Your task to perform on an android device: Open the stopwatch Image 0: 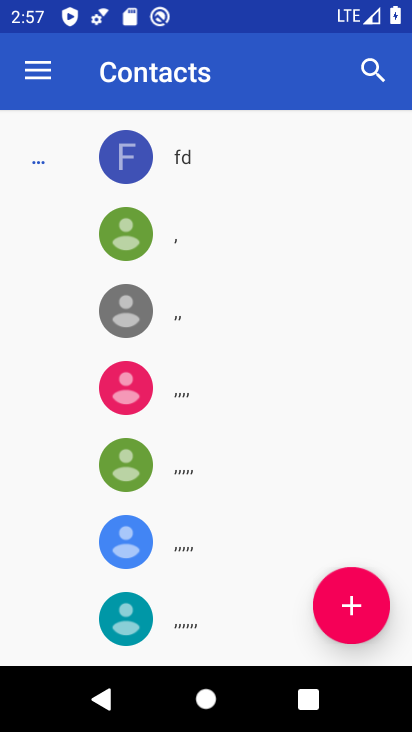
Step 0: press back button
Your task to perform on an android device: Open the stopwatch Image 1: 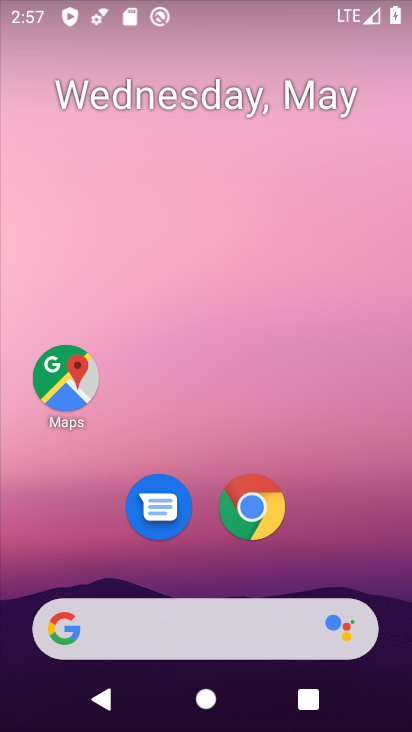
Step 1: drag from (341, 536) to (274, 5)
Your task to perform on an android device: Open the stopwatch Image 2: 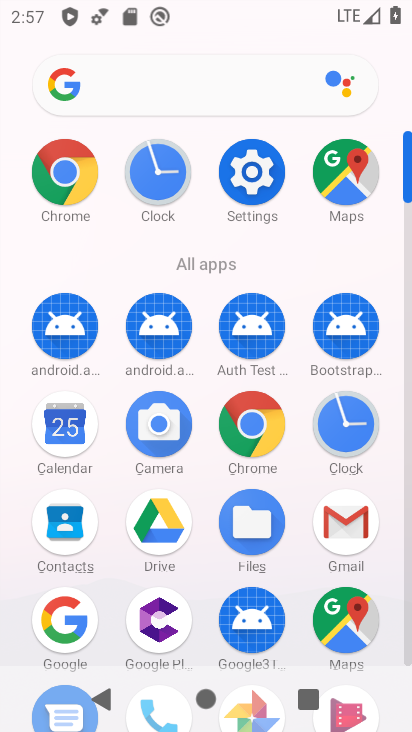
Step 2: click (346, 420)
Your task to perform on an android device: Open the stopwatch Image 3: 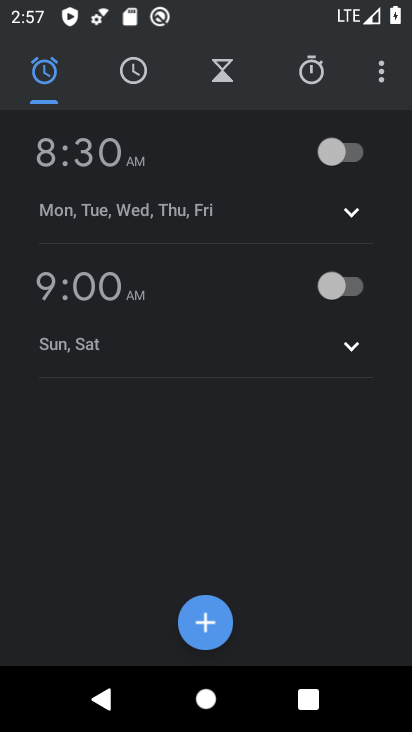
Step 3: click (304, 72)
Your task to perform on an android device: Open the stopwatch Image 4: 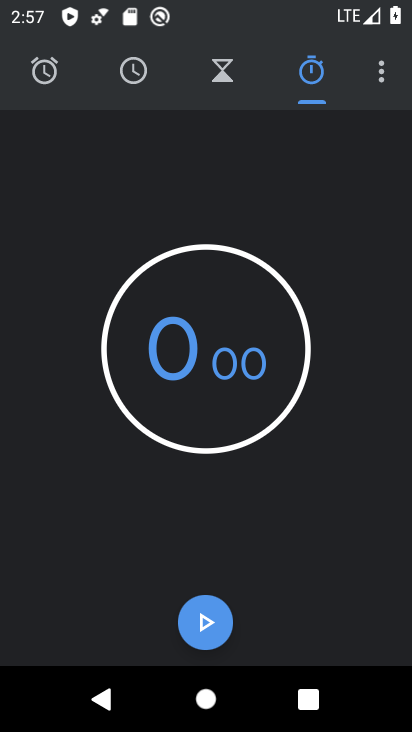
Step 4: task complete